Your task to perform on an android device: Open location settings Image 0: 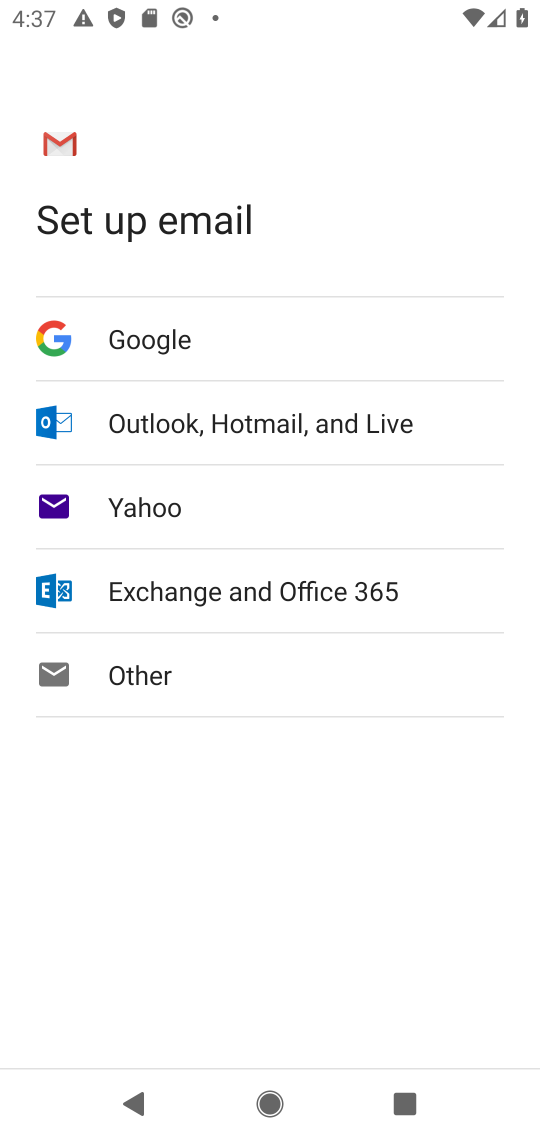
Step 0: press home button
Your task to perform on an android device: Open location settings Image 1: 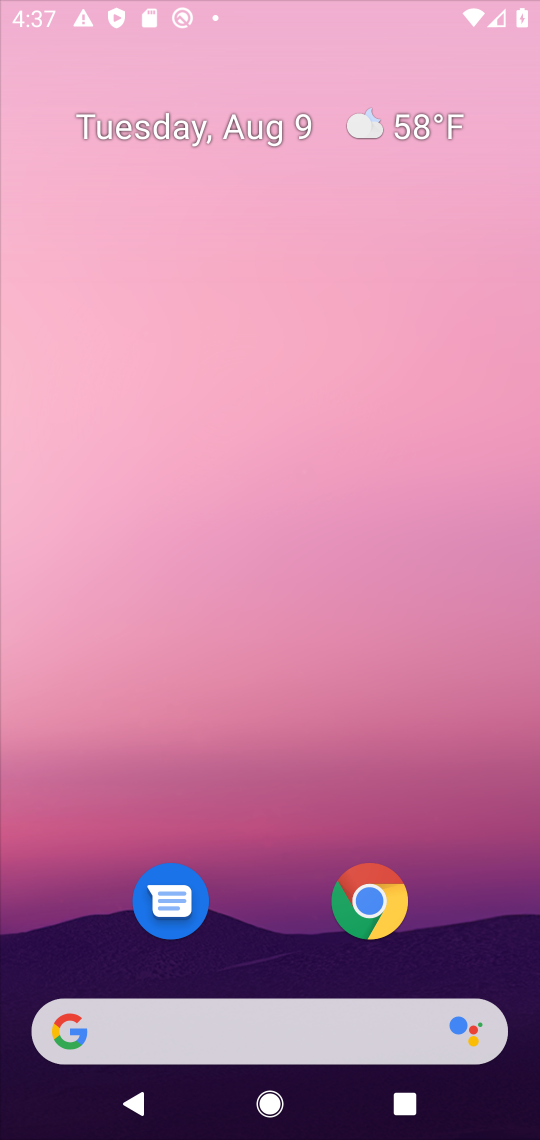
Step 1: drag from (267, 975) to (519, 16)
Your task to perform on an android device: Open location settings Image 2: 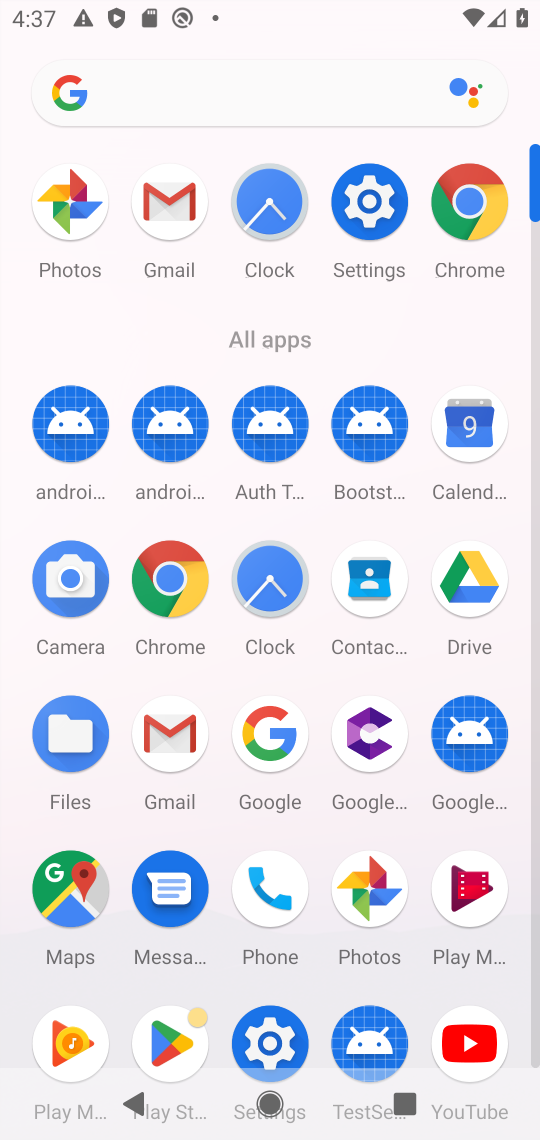
Step 2: click (364, 196)
Your task to perform on an android device: Open location settings Image 3: 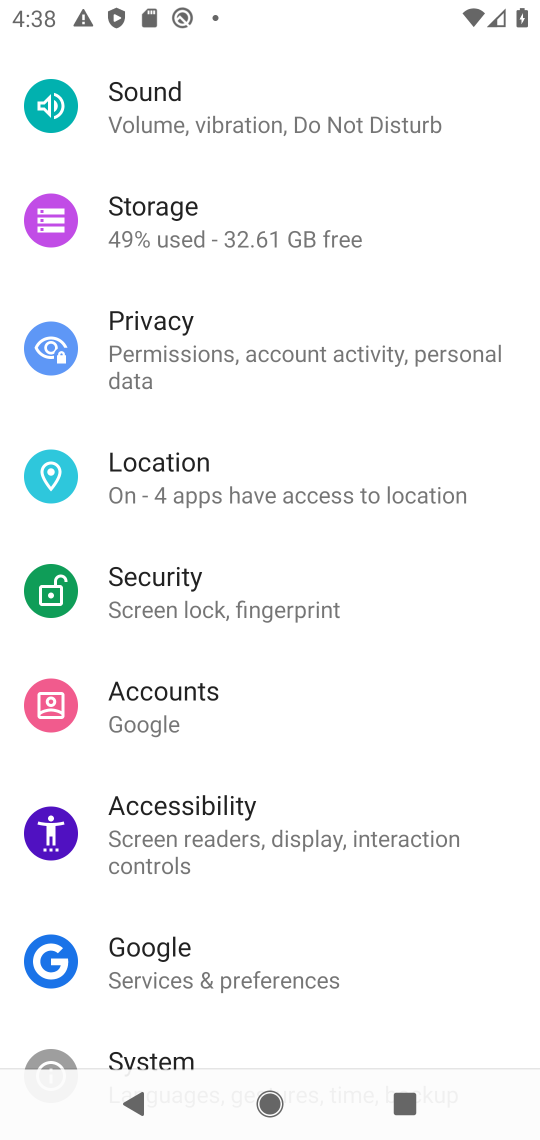
Step 3: click (233, 470)
Your task to perform on an android device: Open location settings Image 4: 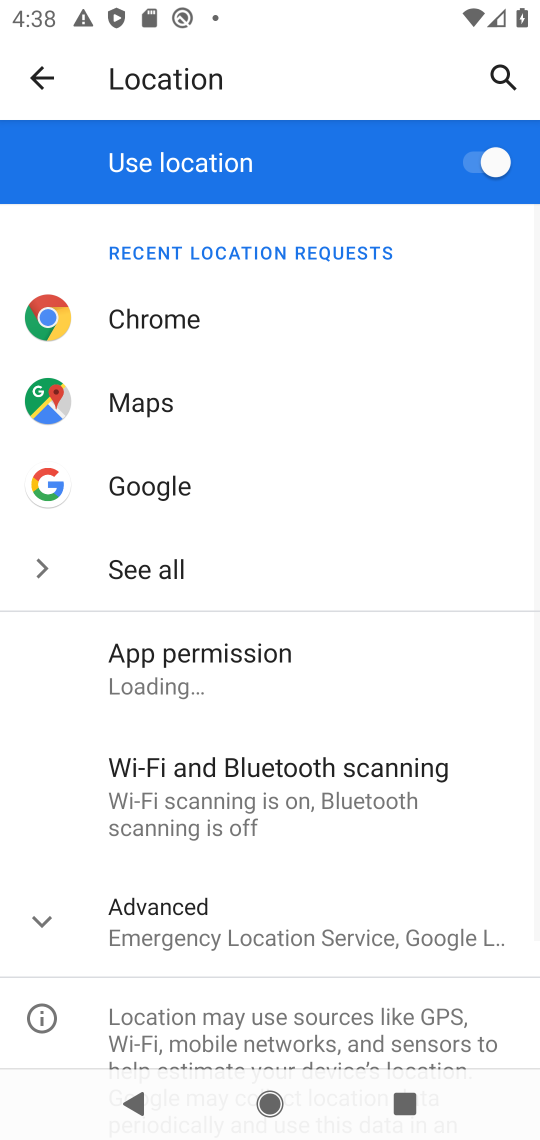
Step 4: task complete